Your task to perform on an android device: Show me productivity apps on the Play Store Image 0: 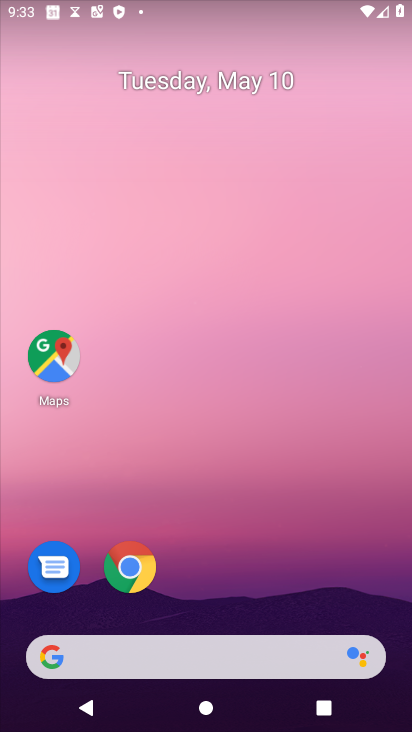
Step 0: drag from (112, 443) to (217, 161)
Your task to perform on an android device: Show me productivity apps on the Play Store Image 1: 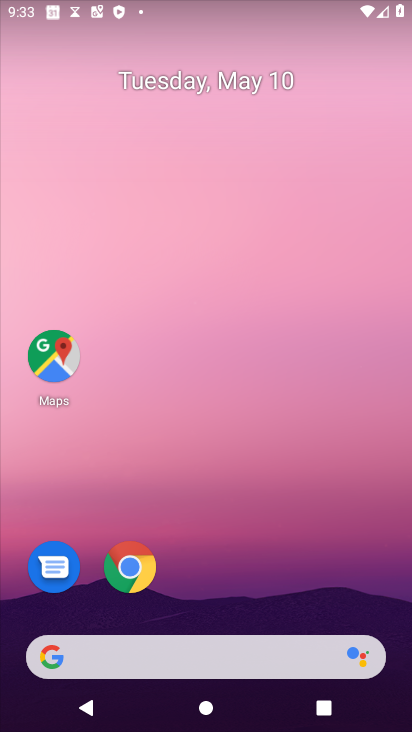
Step 1: drag from (6, 664) to (241, 135)
Your task to perform on an android device: Show me productivity apps on the Play Store Image 2: 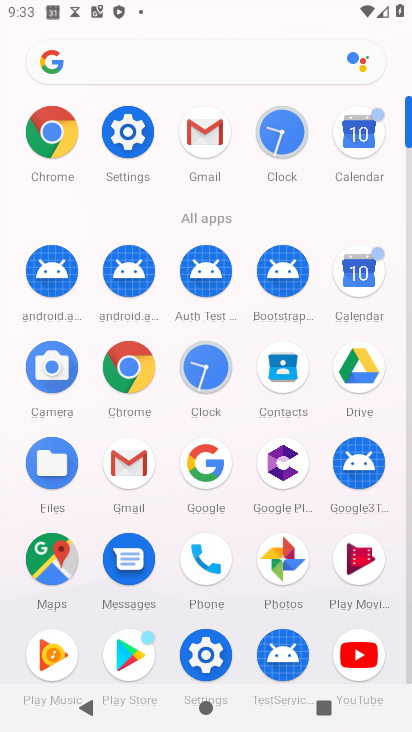
Step 2: click (146, 647)
Your task to perform on an android device: Show me productivity apps on the Play Store Image 3: 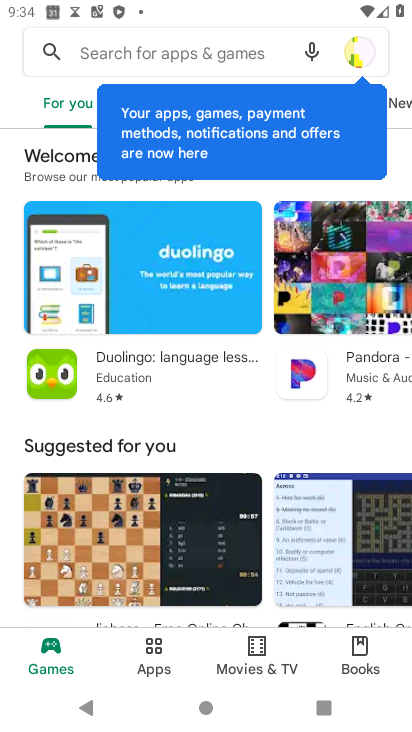
Step 3: task complete